Your task to perform on an android device: Go to internet settings Image 0: 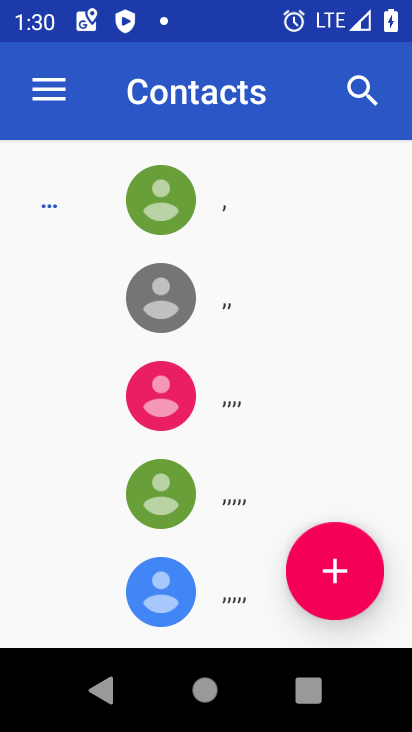
Step 0: press home button
Your task to perform on an android device: Go to internet settings Image 1: 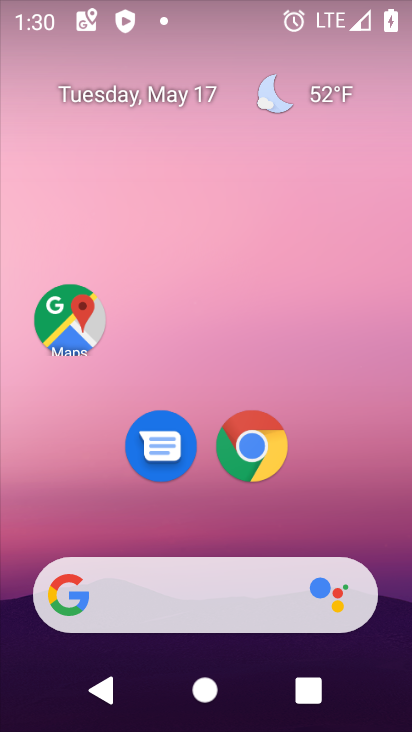
Step 1: drag from (169, 518) to (188, 258)
Your task to perform on an android device: Go to internet settings Image 2: 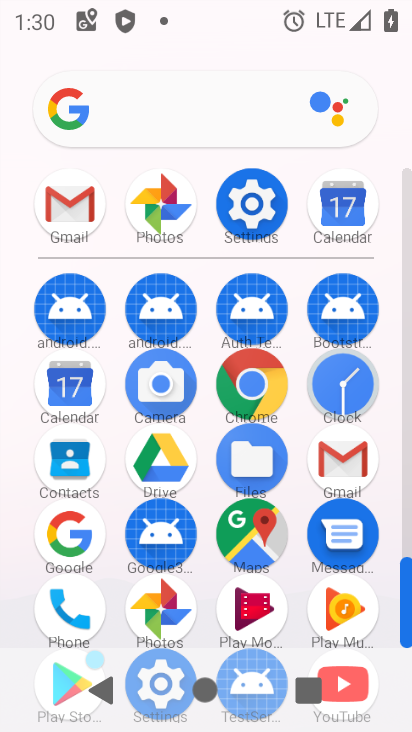
Step 2: click (270, 213)
Your task to perform on an android device: Go to internet settings Image 3: 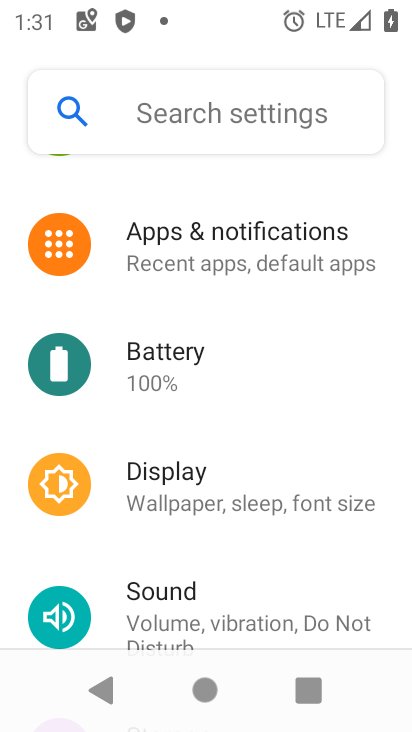
Step 3: drag from (257, 212) to (260, 497)
Your task to perform on an android device: Go to internet settings Image 4: 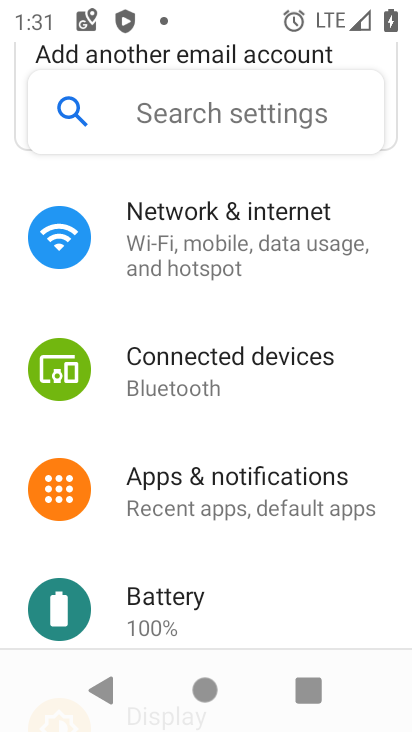
Step 4: click (270, 233)
Your task to perform on an android device: Go to internet settings Image 5: 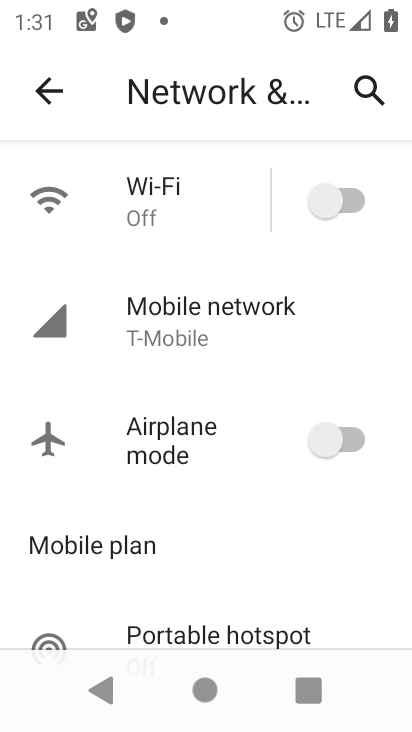
Step 5: task complete